Your task to perform on an android device: turn off location Image 0: 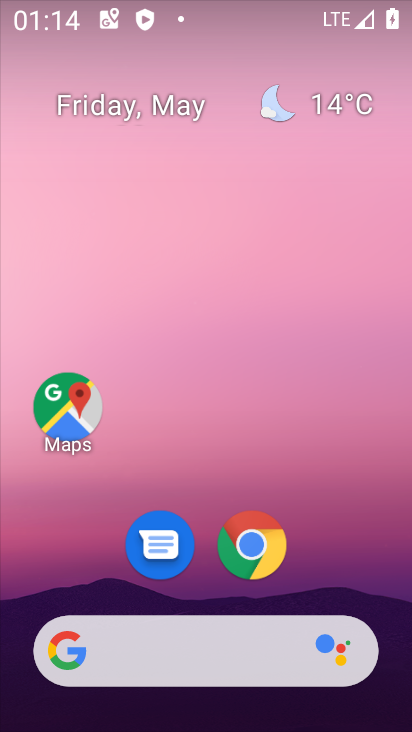
Step 0: drag from (329, 551) to (275, 10)
Your task to perform on an android device: turn off location Image 1: 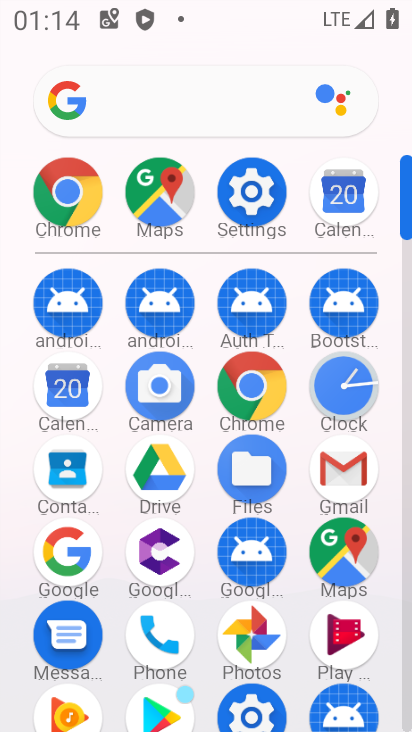
Step 1: drag from (212, 542) to (203, 298)
Your task to perform on an android device: turn off location Image 2: 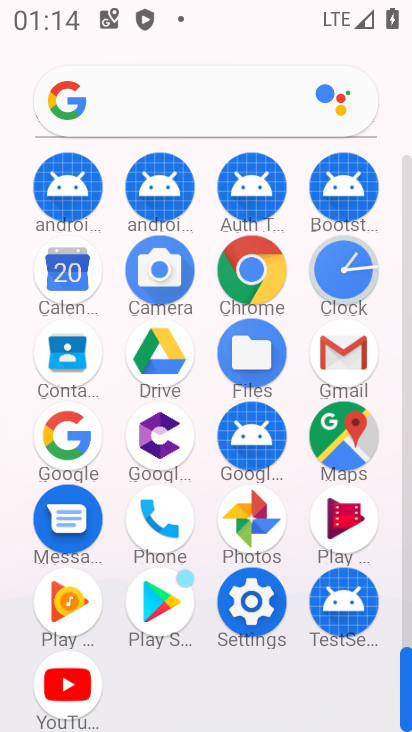
Step 2: drag from (201, 259) to (222, 560)
Your task to perform on an android device: turn off location Image 3: 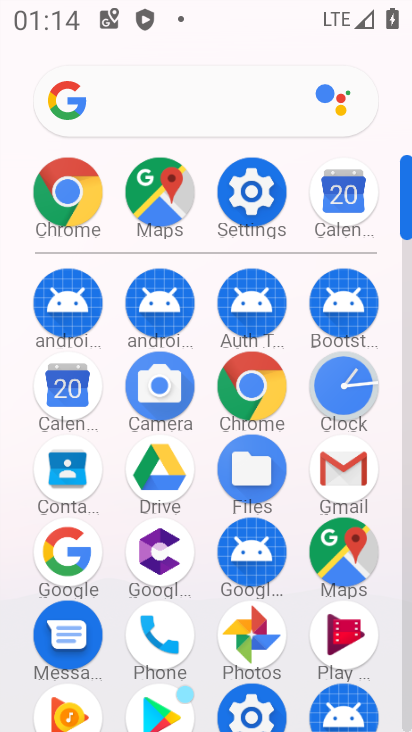
Step 3: click (250, 200)
Your task to perform on an android device: turn off location Image 4: 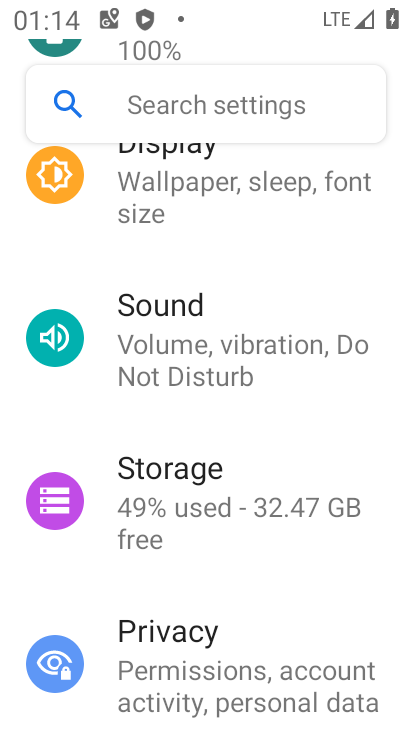
Step 4: drag from (242, 477) to (253, 617)
Your task to perform on an android device: turn off location Image 5: 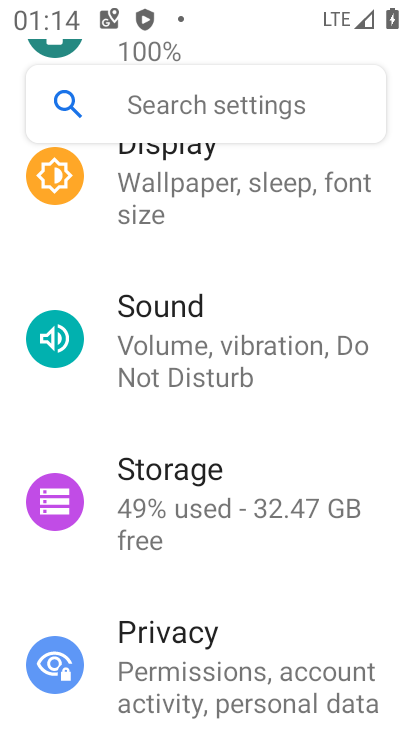
Step 5: click (245, 562)
Your task to perform on an android device: turn off location Image 6: 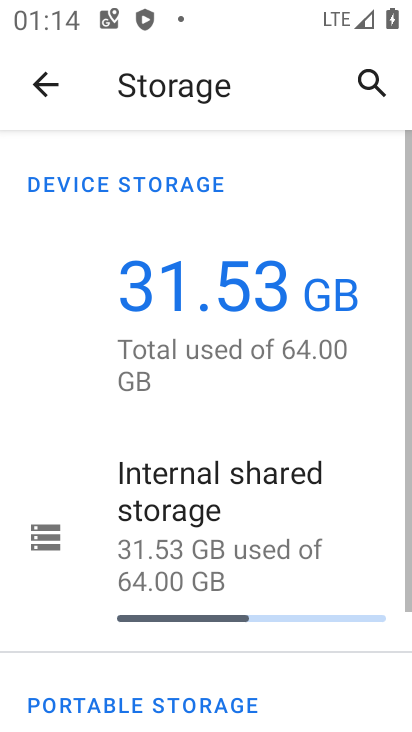
Step 6: drag from (226, 324) to (240, 615)
Your task to perform on an android device: turn off location Image 7: 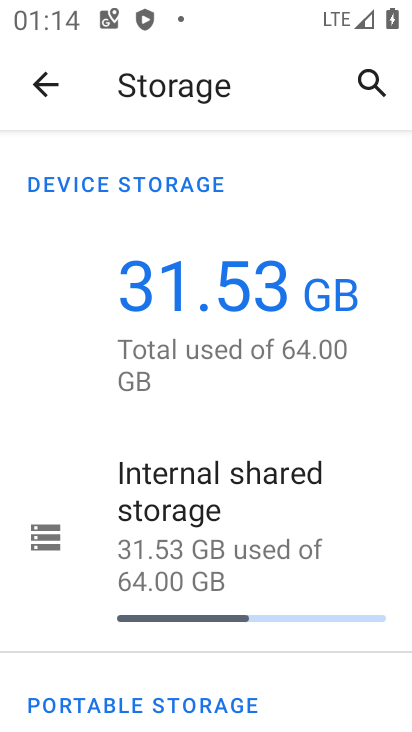
Step 7: click (35, 99)
Your task to perform on an android device: turn off location Image 8: 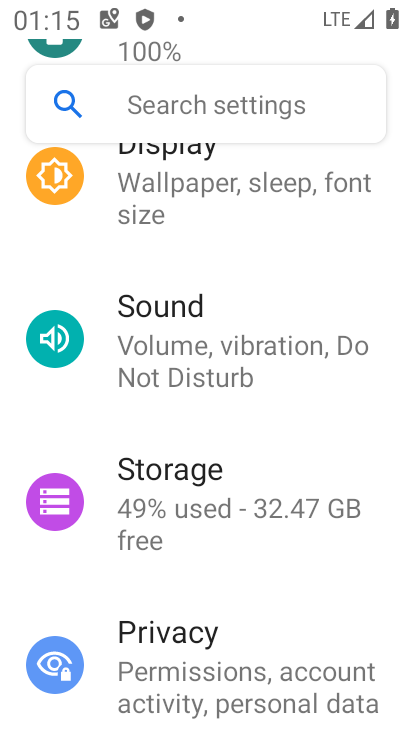
Step 8: drag from (254, 234) to (296, 457)
Your task to perform on an android device: turn off location Image 9: 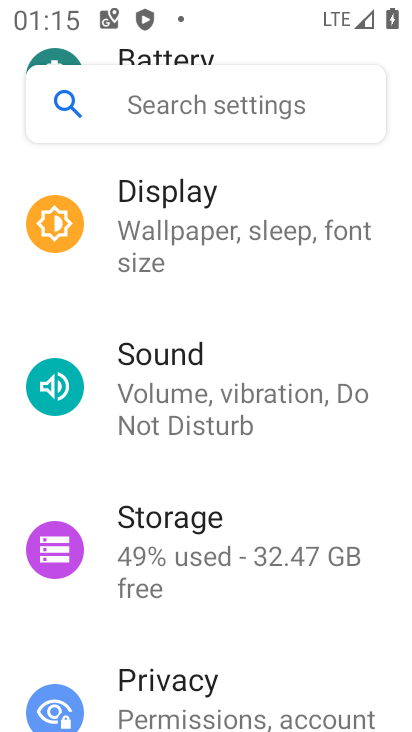
Step 9: drag from (240, 542) to (235, 248)
Your task to perform on an android device: turn off location Image 10: 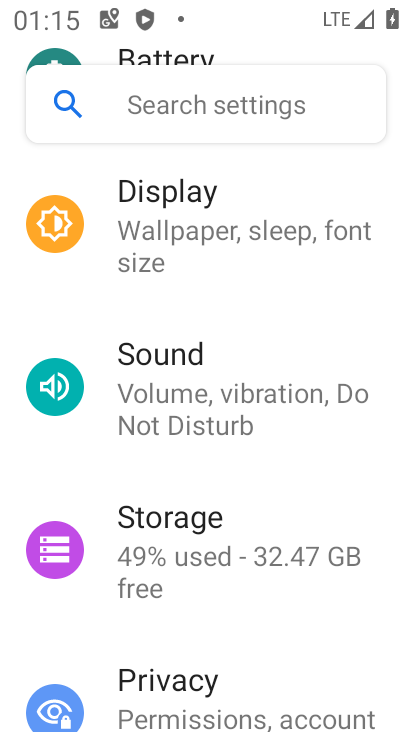
Step 10: drag from (224, 314) to (228, 543)
Your task to perform on an android device: turn off location Image 11: 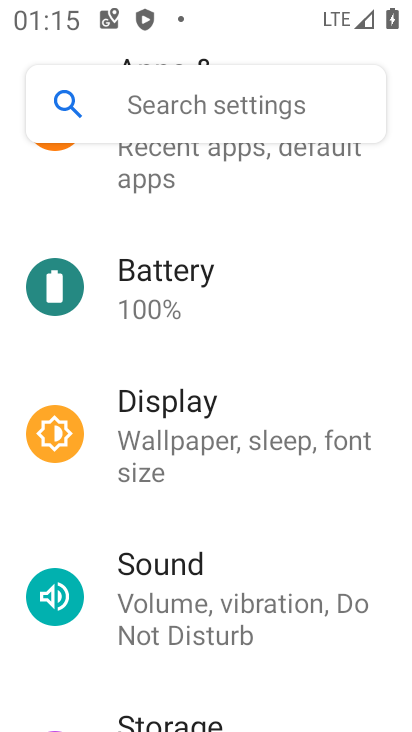
Step 11: drag from (224, 645) to (220, 344)
Your task to perform on an android device: turn off location Image 12: 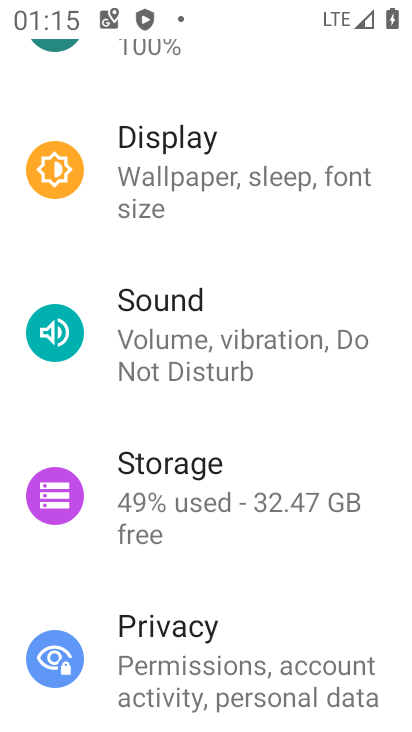
Step 12: drag from (232, 641) to (209, 341)
Your task to perform on an android device: turn off location Image 13: 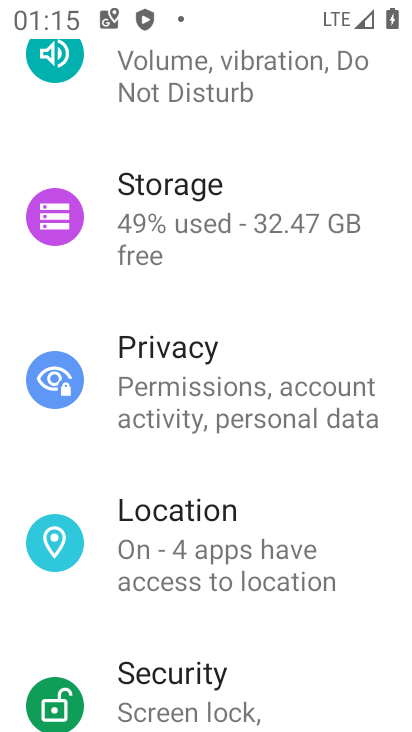
Step 13: click (228, 564)
Your task to perform on an android device: turn off location Image 14: 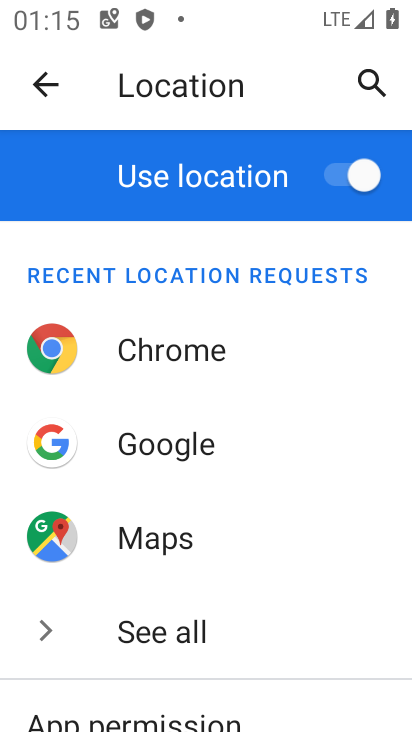
Step 14: drag from (303, 674) to (237, 360)
Your task to perform on an android device: turn off location Image 15: 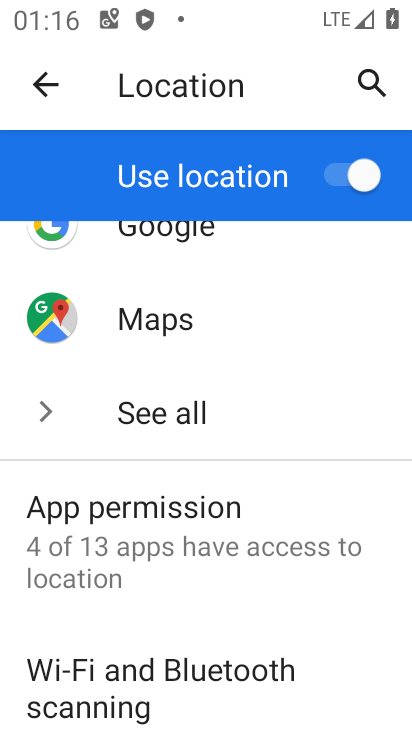
Step 15: drag from (186, 588) to (187, 290)
Your task to perform on an android device: turn off location Image 16: 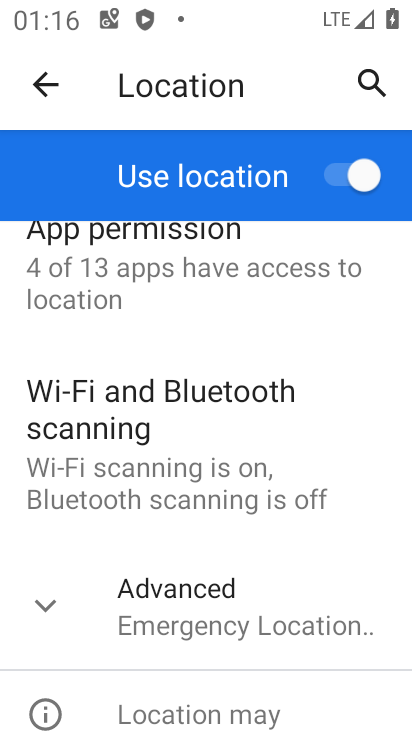
Step 16: click (206, 610)
Your task to perform on an android device: turn off location Image 17: 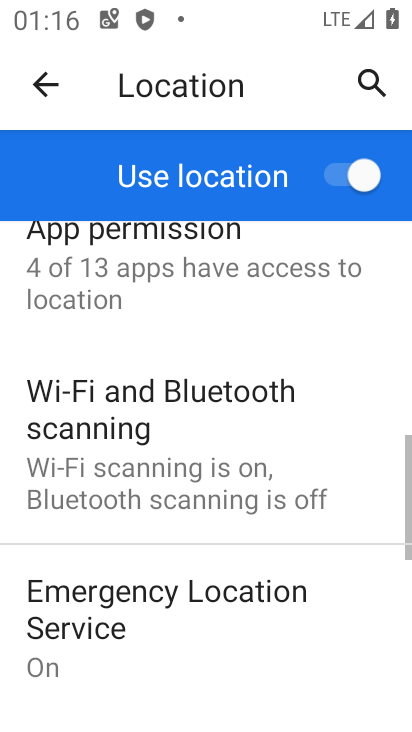
Step 17: drag from (214, 646) to (187, 417)
Your task to perform on an android device: turn off location Image 18: 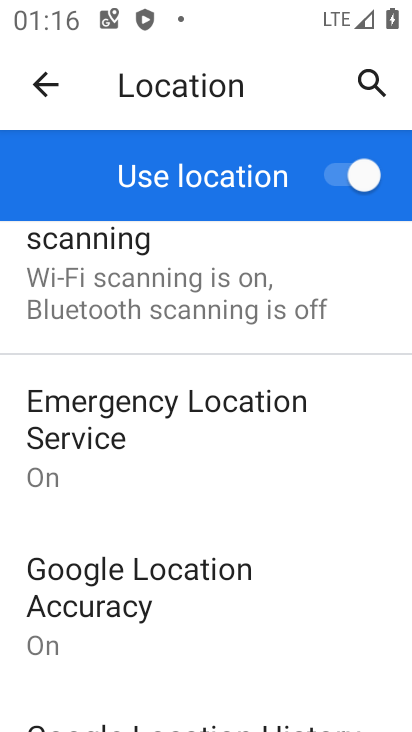
Step 18: click (327, 170)
Your task to perform on an android device: turn off location Image 19: 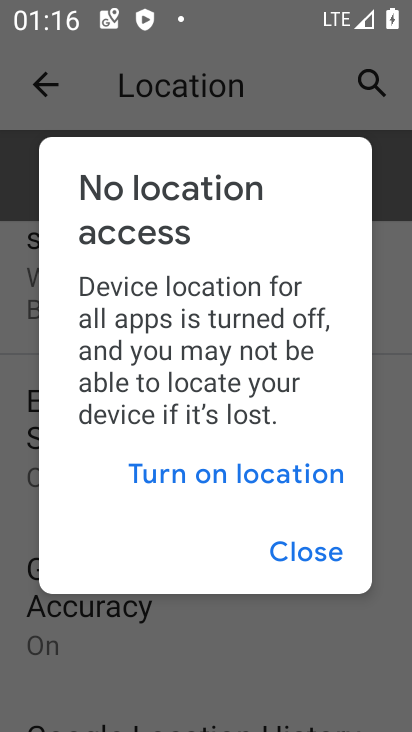
Step 19: task complete